Your task to perform on an android device: allow notifications from all sites in the chrome app Image 0: 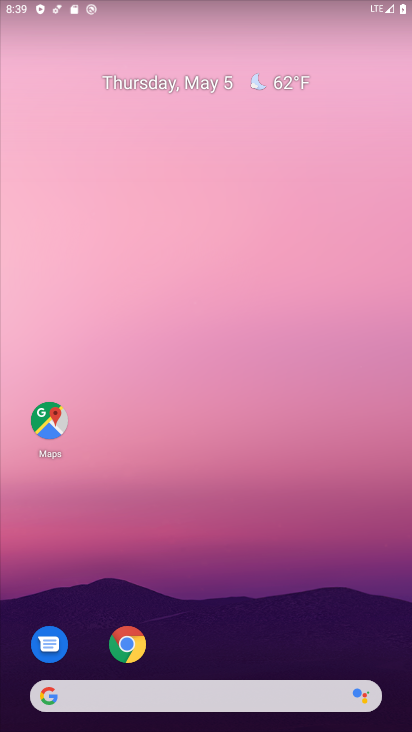
Step 0: drag from (290, 598) to (382, 164)
Your task to perform on an android device: allow notifications from all sites in the chrome app Image 1: 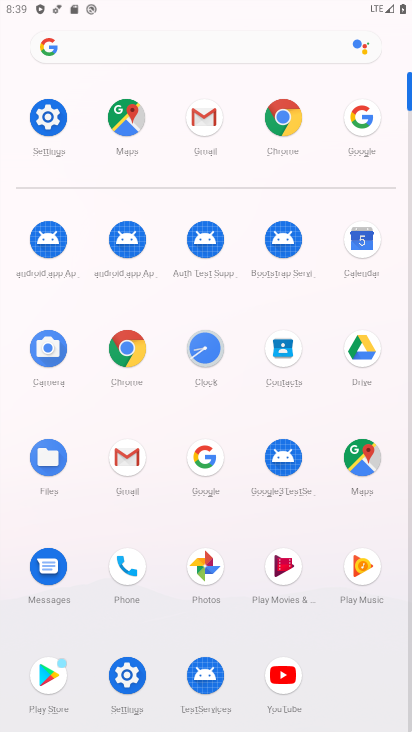
Step 1: click (276, 128)
Your task to perform on an android device: allow notifications from all sites in the chrome app Image 2: 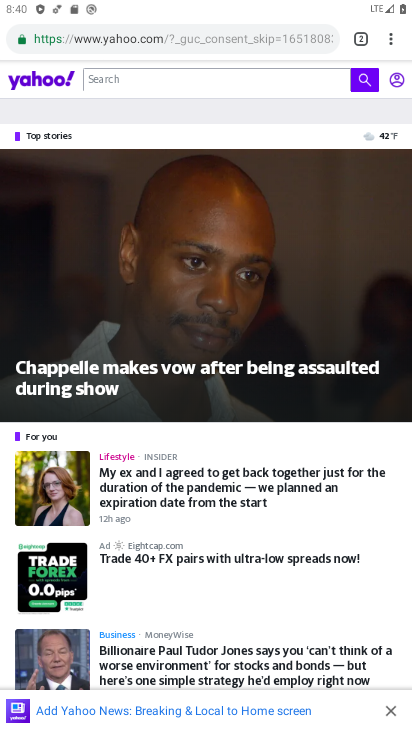
Step 2: drag from (389, 42) to (258, 502)
Your task to perform on an android device: allow notifications from all sites in the chrome app Image 3: 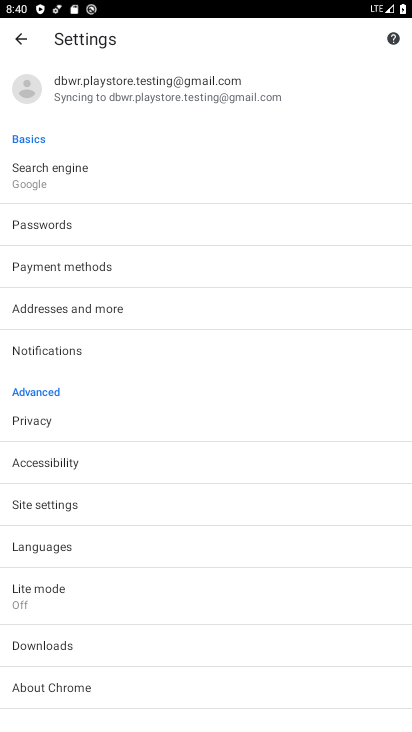
Step 3: click (65, 502)
Your task to perform on an android device: allow notifications from all sites in the chrome app Image 4: 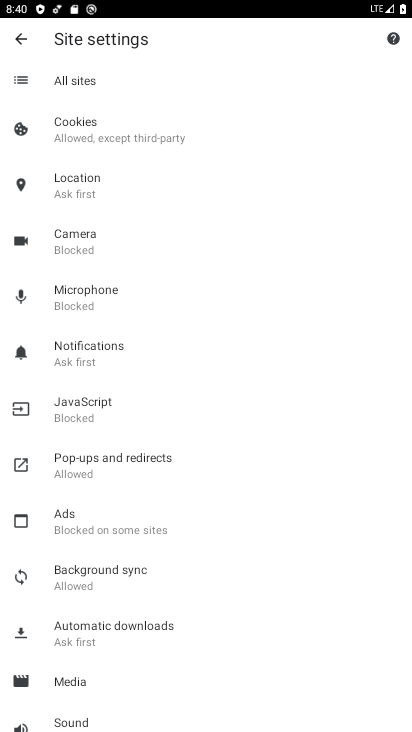
Step 4: click (79, 348)
Your task to perform on an android device: allow notifications from all sites in the chrome app Image 5: 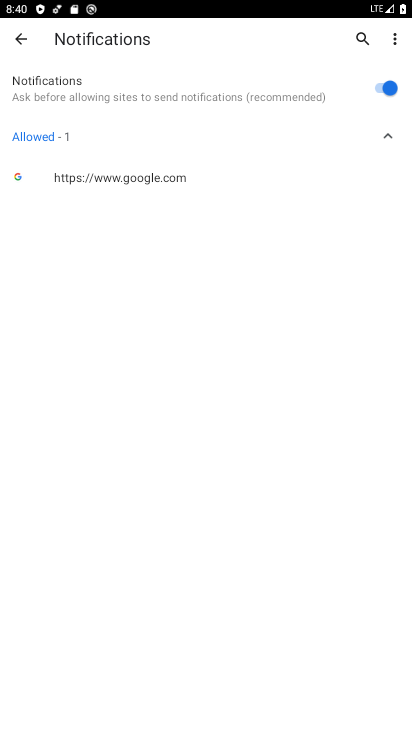
Step 5: task complete